Your task to perform on an android device: move an email to a new category in the gmail app Image 0: 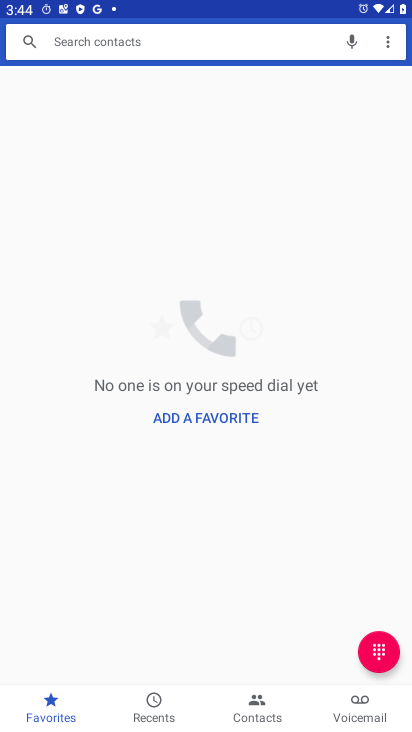
Step 0: press home button
Your task to perform on an android device: move an email to a new category in the gmail app Image 1: 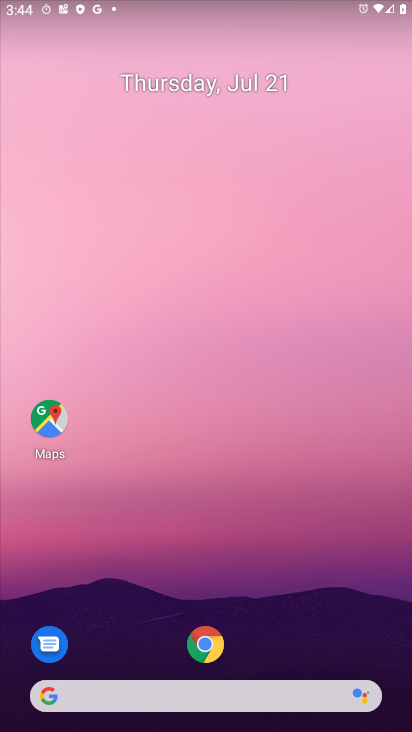
Step 1: press home button
Your task to perform on an android device: move an email to a new category in the gmail app Image 2: 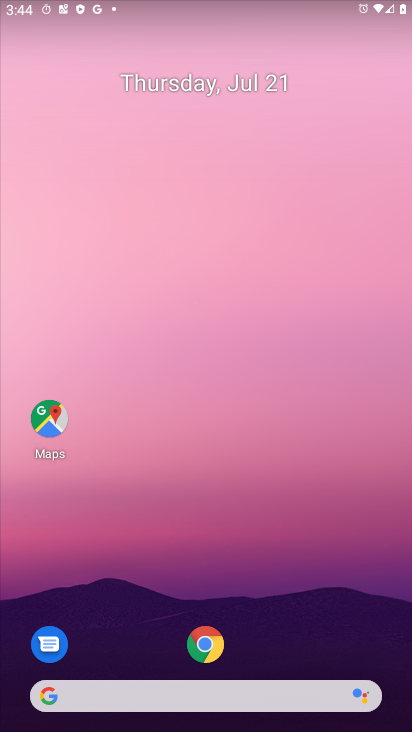
Step 2: drag from (288, 634) to (279, 113)
Your task to perform on an android device: move an email to a new category in the gmail app Image 3: 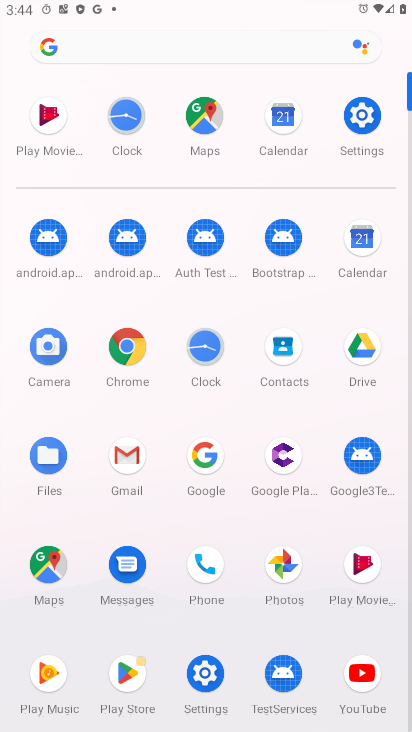
Step 3: click (134, 449)
Your task to perform on an android device: move an email to a new category in the gmail app Image 4: 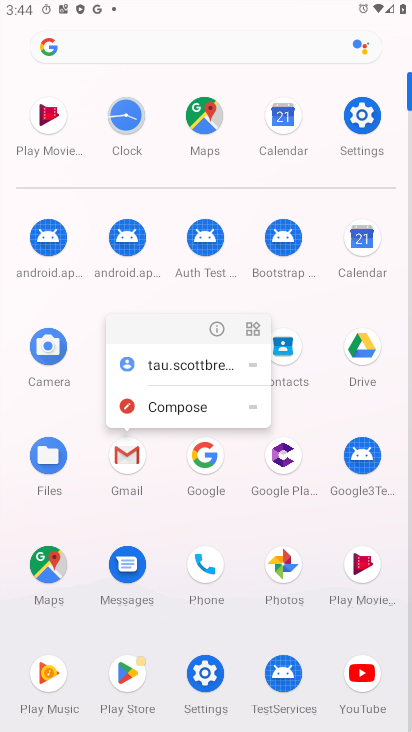
Step 4: click (137, 461)
Your task to perform on an android device: move an email to a new category in the gmail app Image 5: 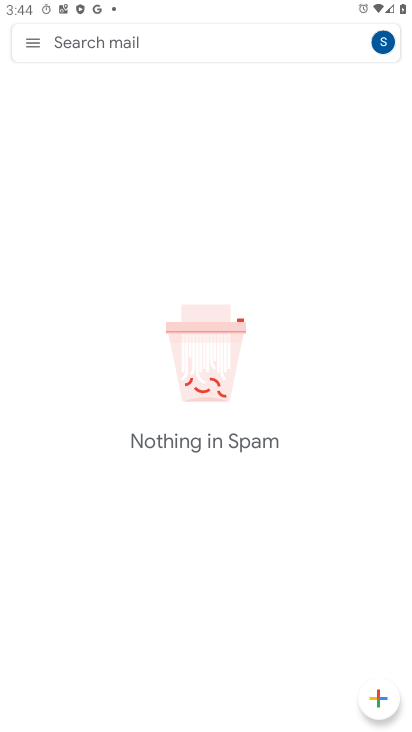
Step 5: click (39, 44)
Your task to perform on an android device: move an email to a new category in the gmail app Image 6: 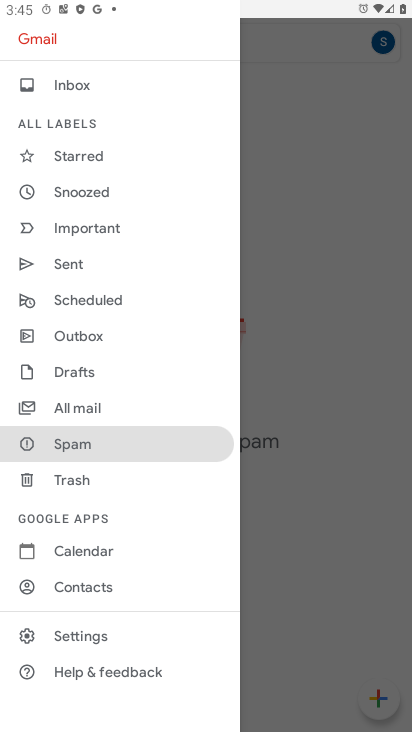
Step 6: click (101, 409)
Your task to perform on an android device: move an email to a new category in the gmail app Image 7: 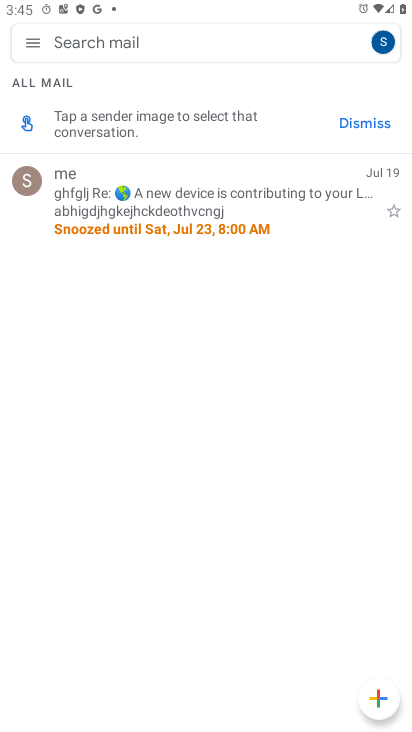
Step 7: click (155, 186)
Your task to perform on an android device: move an email to a new category in the gmail app Image 8: 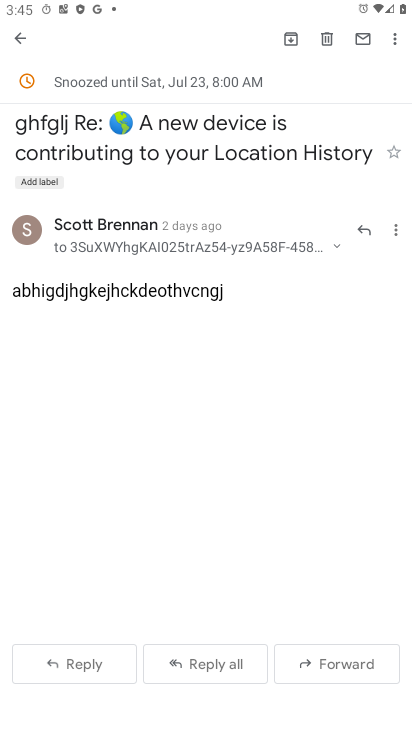
Step 8: click (390, 31)
Your task to perform on an android device: move an email to a new category in the gmail app Image 9: 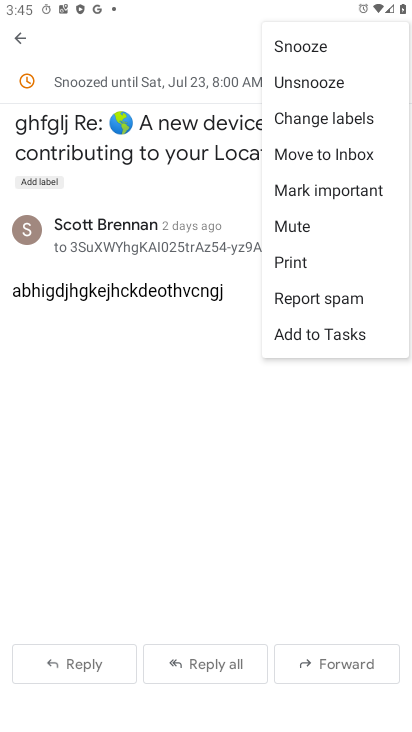
Step 9: click (308, 151)
Your task to perform on an android device: move an email to a new category in the gmail app Image 10: 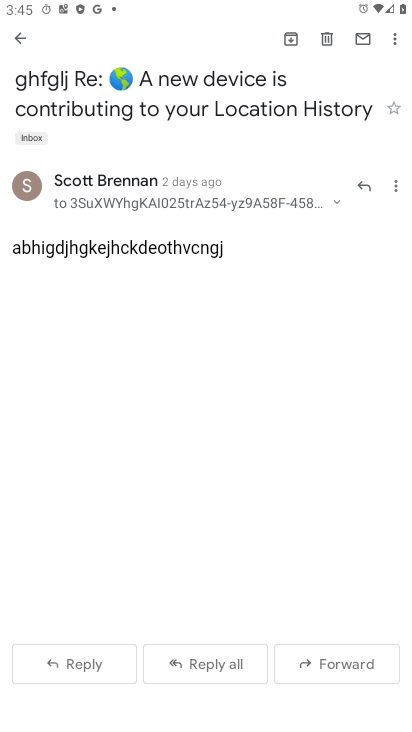
Step 10: click (392, 185)
Your task to perform on an android device: move an email to a new category in the gmail app Image 11: 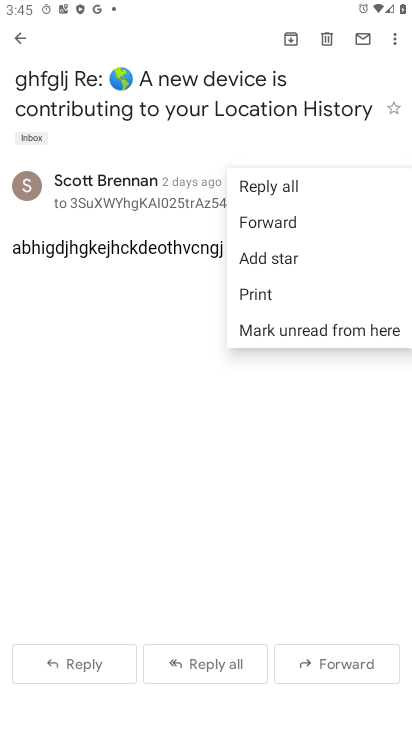
Step 11: click (388, 33)
Your task to perform on an android device: move an email to a new category in the gmail app Image 12: 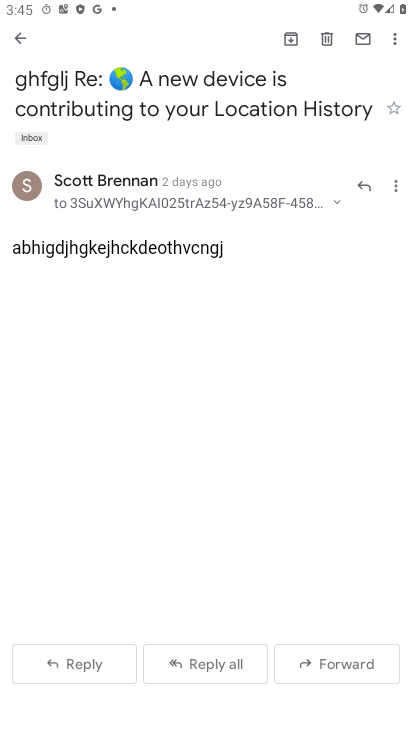
Step 12: click (388, 33)
Your task to perform on an android device: move an email to a new category in the gmail app Image 13: 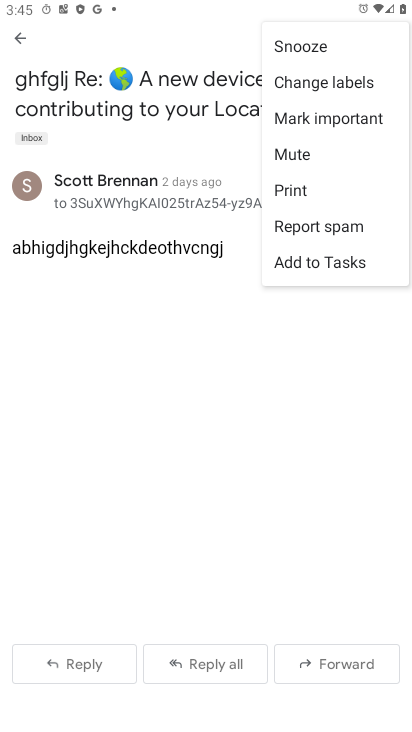
Step 13: task complete